Your task to perform on an android device: toggle improve location accuracy Image 0: 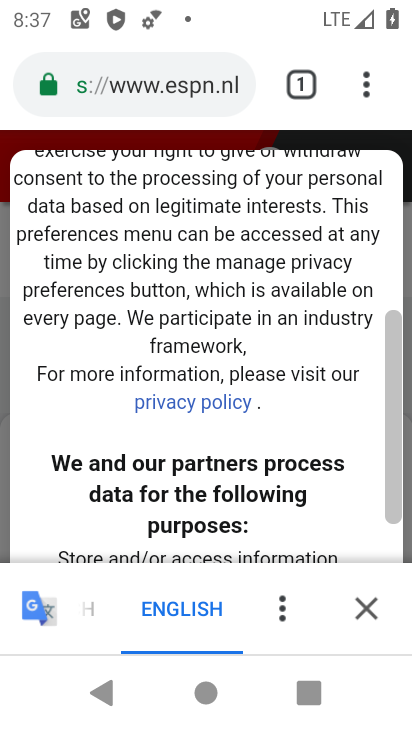
Step 0: press home button
Your task to perform on an android device: toggle improve location accuracy Image 1: 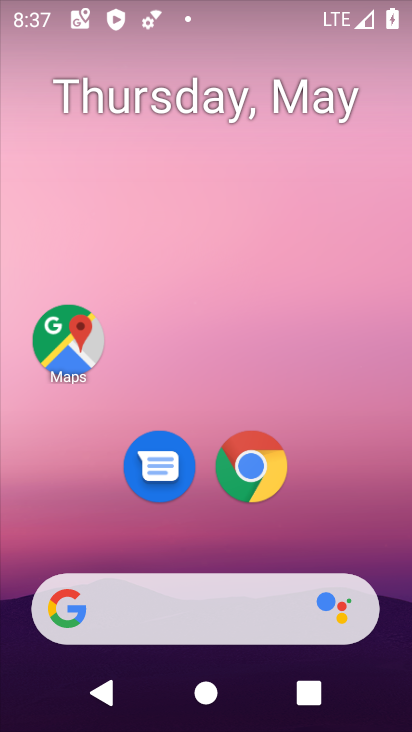
Step 1: drag from (336, 567) to (346, 10)
Your task to perform on an android device: toggle improve location accuracy Image 2: 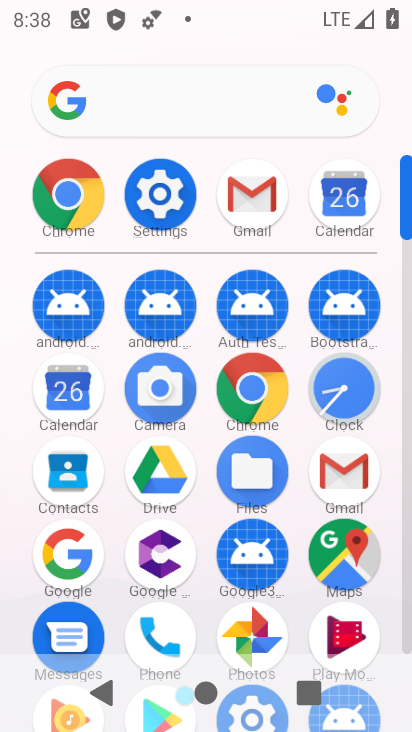
Step 2: click (160, 200)
Your task to perform on an android device: toggle improve location accuracy Image 3: 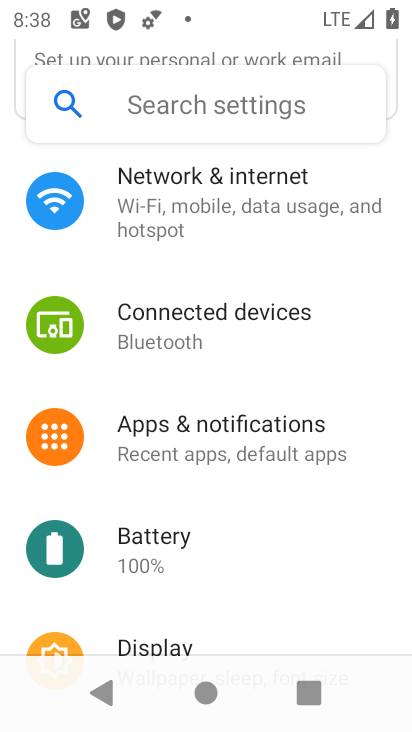
Step 3: drag from (278, 624) to (273, 313)
Your task to perform on an android device: toggle improve location accuracy Image 4: 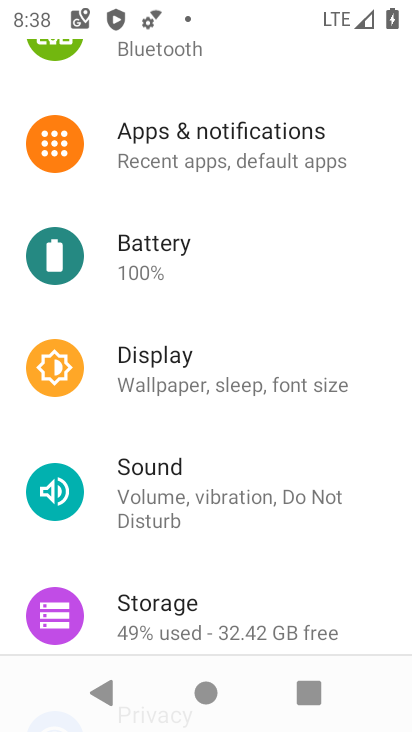
Step 4: drag from (310, 548) to (293, 325)
Your task to perform on an android device: toggle improve location accuracy Image 5: 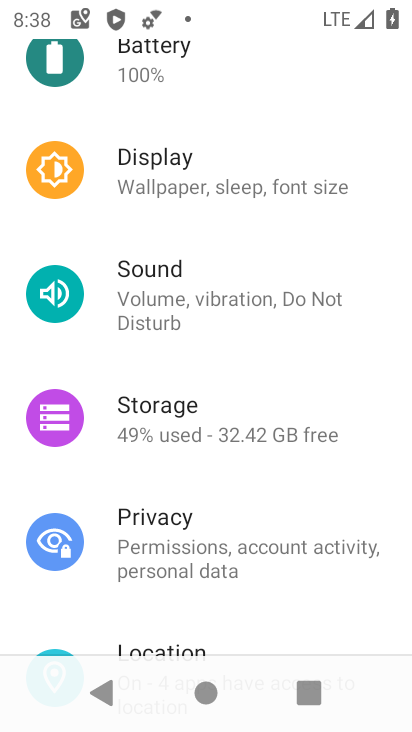
Step 5: drag from (335, 553) to (305, 247)
Your task to perform on an android device: toggle improve location accuracy Image 6: 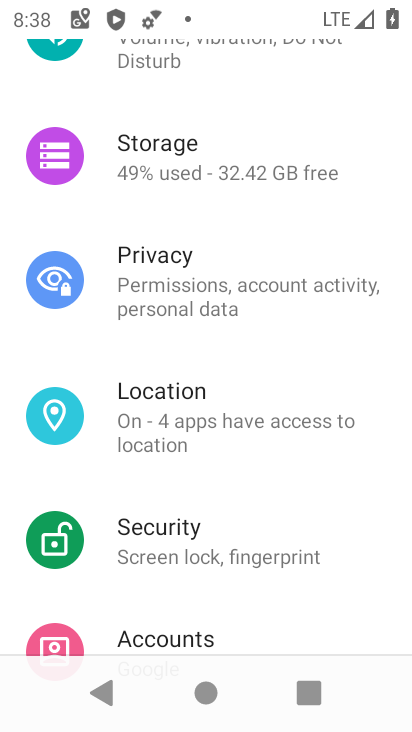
Step 6: click (152, 433)
Your task to perform on an android device: toggle improve location accuracy Image 7: 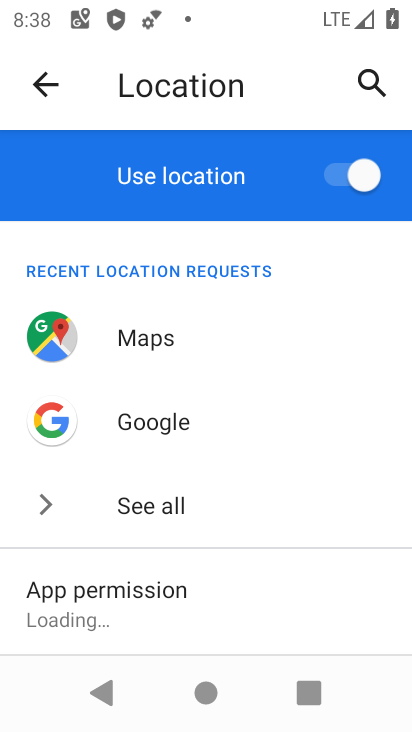
Step 7: drag from (240, 525) to (206, 182)
Your task to perform on an android device: toggle improve location accuracy Image 8: 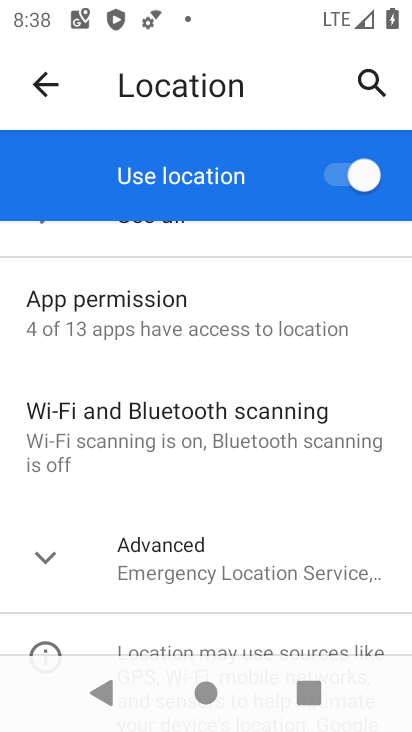
Step 8: click (41, 564)
Your task to perform on an android device: toggle improve location accuracy Image 9: 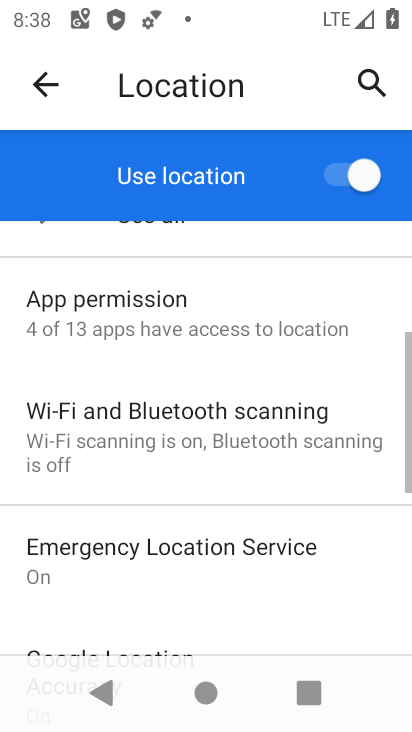
Step 9: drag from (230, 588) to (211, 235)
Your task to perform on an android device: toggle improve location accuracy Image 10: 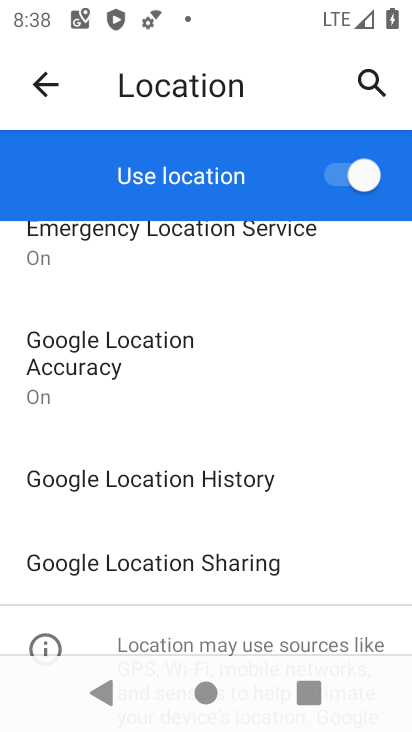
Step 10: click (60, 366)
Your task to perform on an android device: toggle improve location accuracy Image 11: 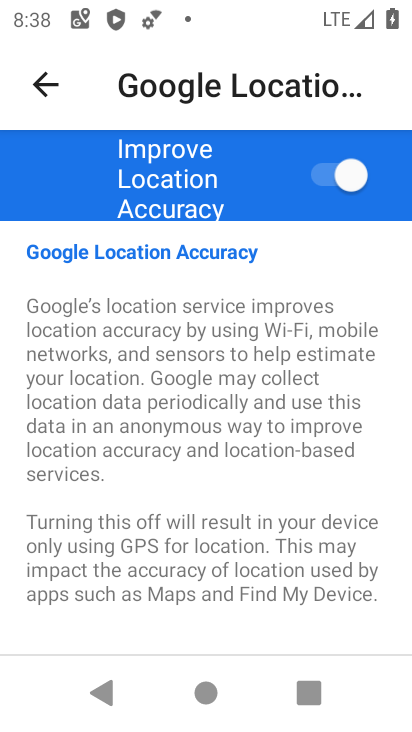
Step 11: click (336, 171)
Your task to perform on an android device: toggle improve location accuracy Image 12: 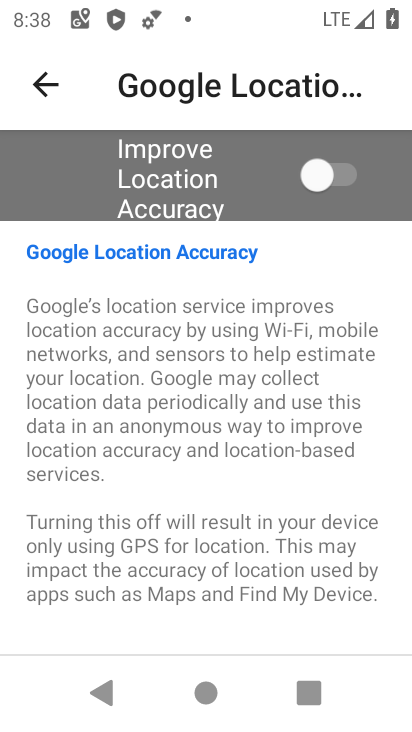
Step 12: task complete